Your task to perform on an android device: Go to display settings Image 0: 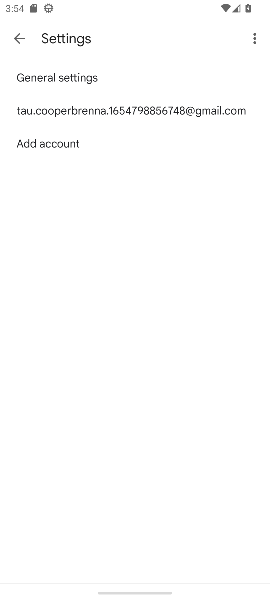
Step 0: drag from (139, 554) to (88, 151)
Your task to perform on an android device: Go to display settings Image 1: 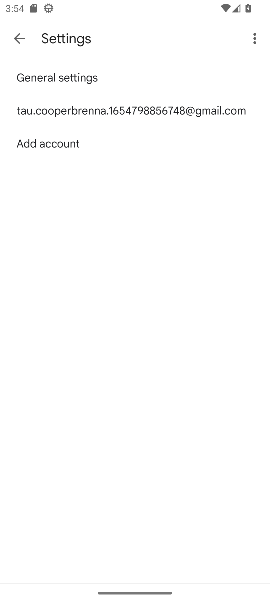
Step 1: click (9, 36)
Your task to perform on an android device: Go to display settings Image 2: 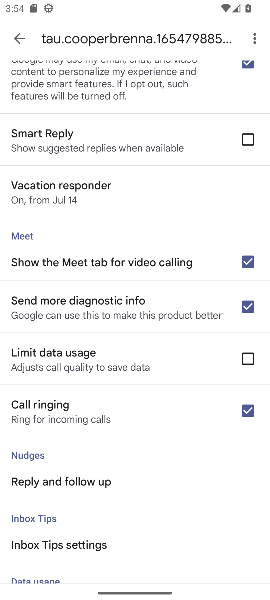
Step 2: click (10, 39)
Your task to perform on an android device: Go to display settings Image 3: 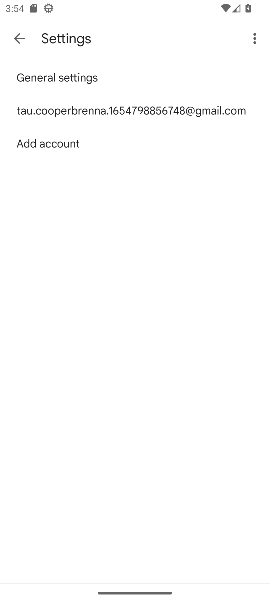
Step 3: click (20, 42)
Your task to perform on an android device: Go to display settings Image 4: 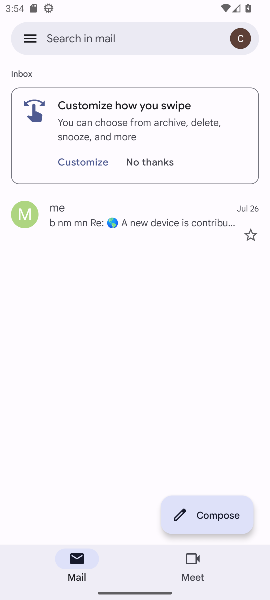
Step 4: click (32, 43)
Your task to perform on an android device: Go to display settings Image 5: 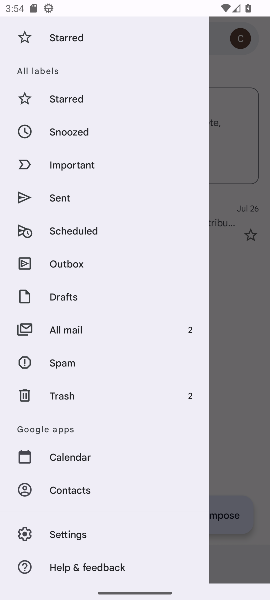
Step 5: press back button
Your task to perform on an android device: Go to display settings Image 6: 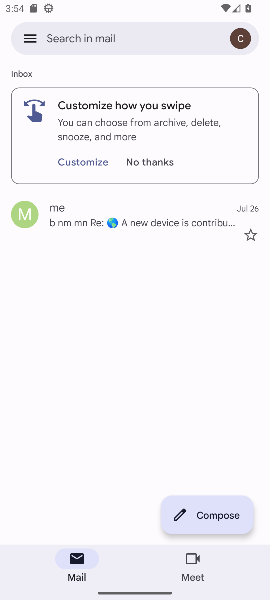
Step 6: press home button
Your task to perform on an android device: Go to display settings Image 7: 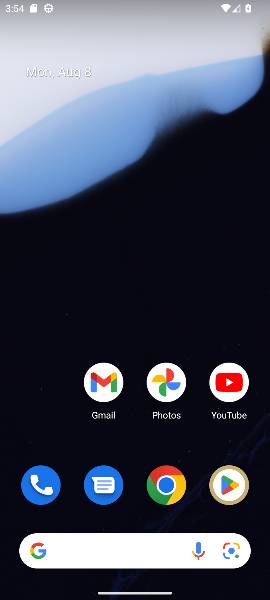
Step 7: drag from (110, 485) to (66, 178)
Your task to perform on an android device: Go to display settings Image 8: 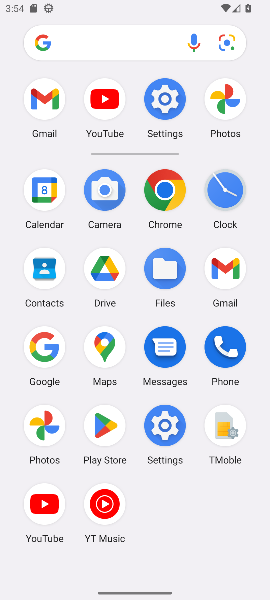
Step 8: click (171, 101)
Your task to perform on an android device: Go to display settings Image 9: 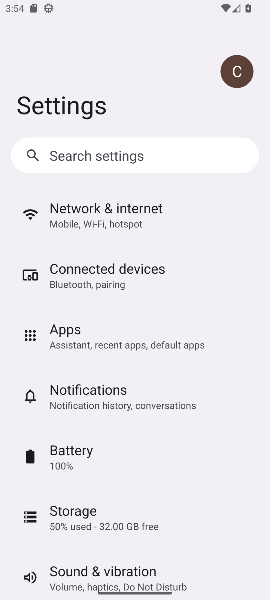
Step 9: drag from (93, 461) to (95, 183)
Your task to perform on an android device: Go to display settings Image 10: 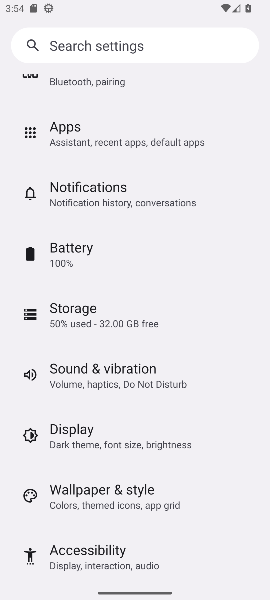
Step 10: click (71, 438)
Your task to perform on an android device: Go to display settings Image 11: 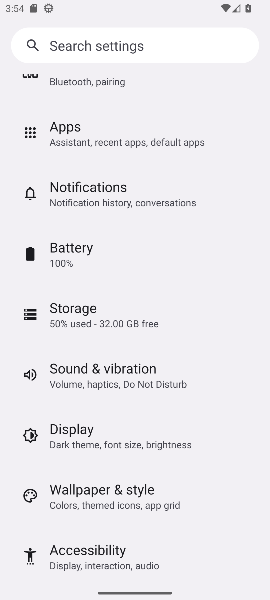
Step 11: click (71, 438)
Your task to perform on an android device: Go to display settings Image 12: 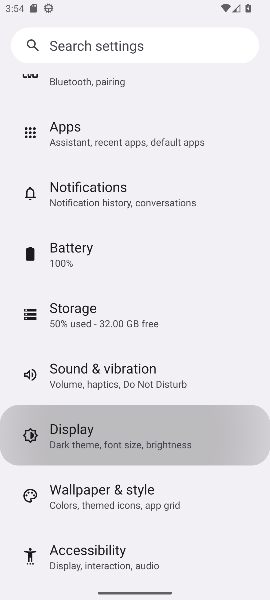
Step 12: click (71, 438)
Your task to perform on an android device: Go to display settings Image 13: 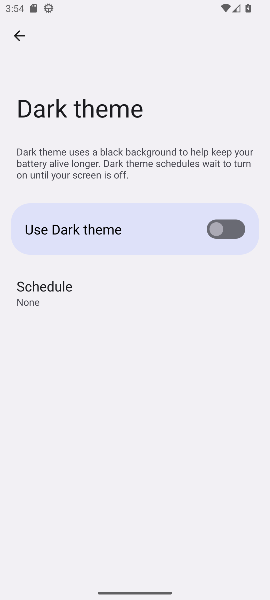
Step 13: click (18, 32)
Your task to perform on an android device: Go to display settings Image 14: 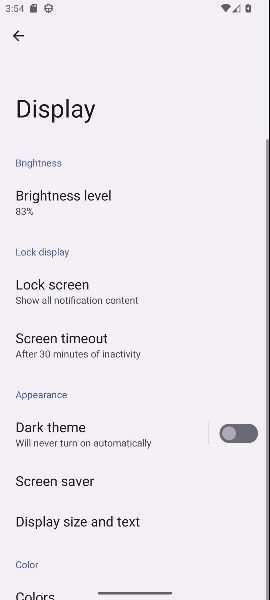
Step 14: task complete